Your task to perform on an android device: choose inbox layout in the gmail app Image 0: 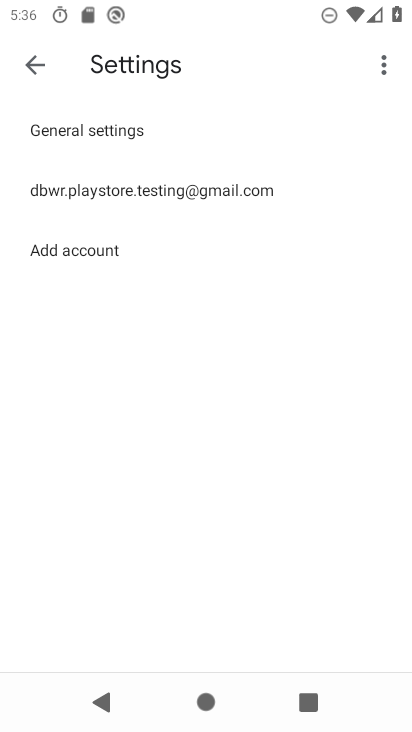
Step 0: click (38, 66)
Your task to perform on an android device: choose inbox layout in the gmail app Image 1: 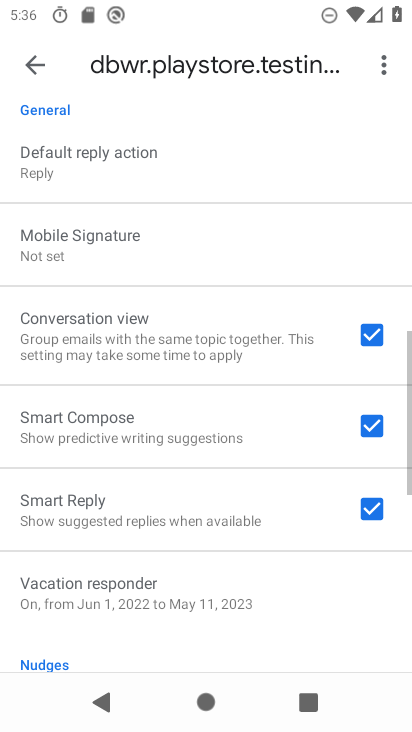
Step 1: click (38, 66)
Your task to perform on an android device: choose inbox layout in the gmail app Image 2: 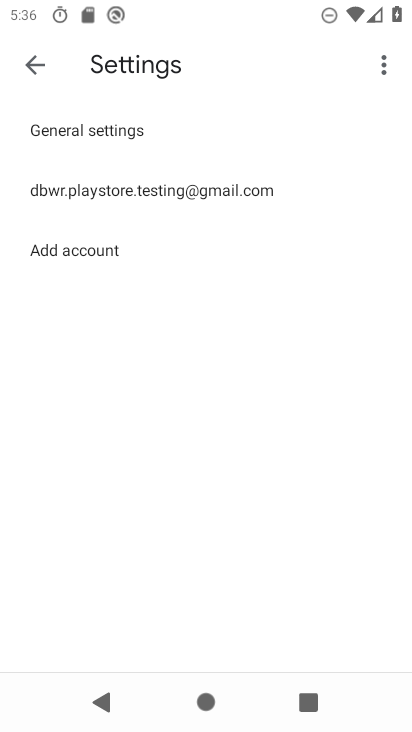
Step 2: click (38, 66)
Your task to perform on an android device: choose inbox layout in the gmail app Image 3: 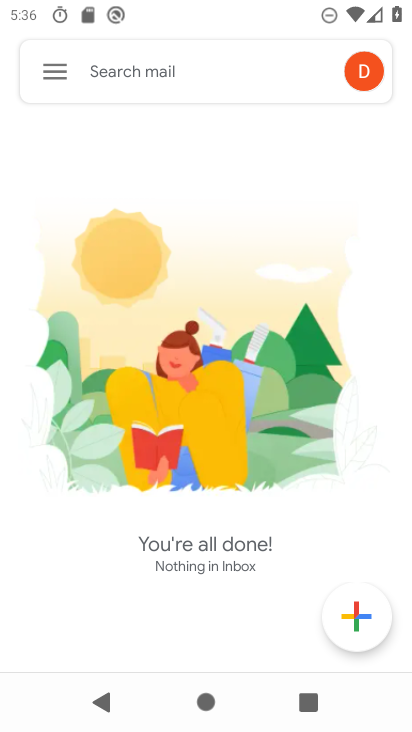
Step 3: click (70, 79)
Your task to perform on an android device: choose inbox layout in the gmail app Image 4: 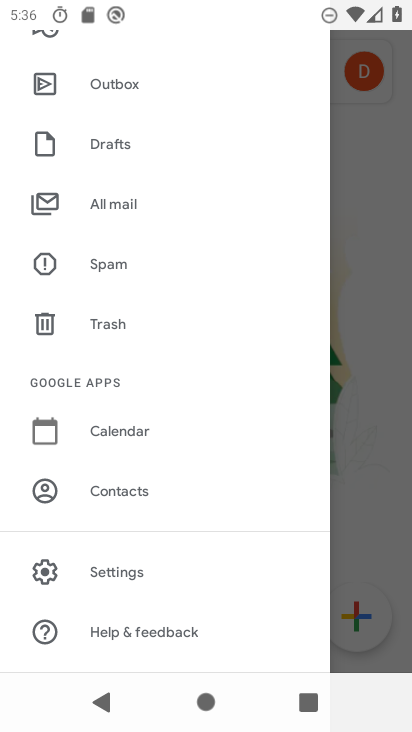
Step 4: click (121, 571)
Your task to perform on an android device: choose inbox layout in the gmail app Image 5: 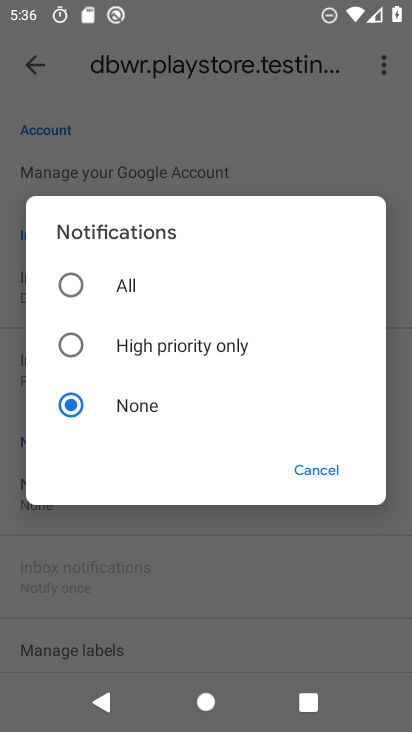
Step 5: click (318, 482)
Your task to perform on an android device: choose inbox layout in the gmail app Image 6: 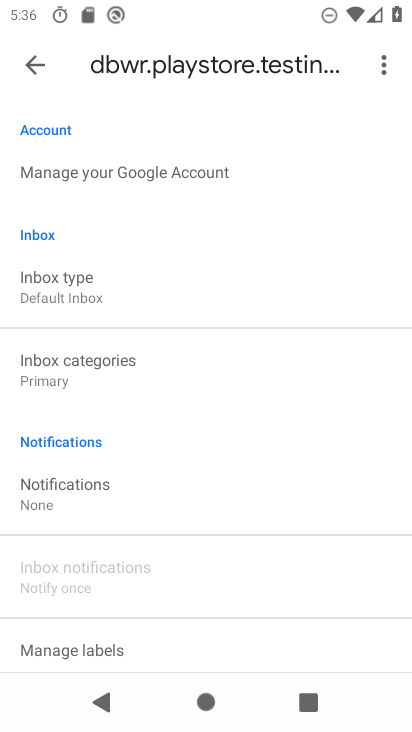
Step 6: click (74, 282)
Your task to perform on an android device: choose inbox layout in the gmail app Image 7: 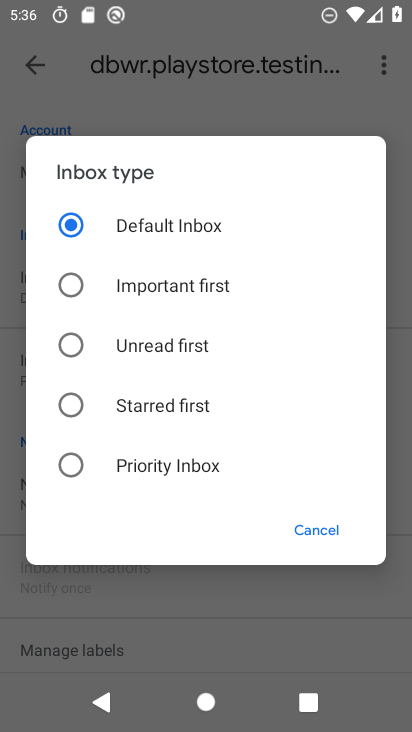
Step 7: click (165, 475)
Your task to perform on an android device: choose inbox layout in the gmail app Image 8: 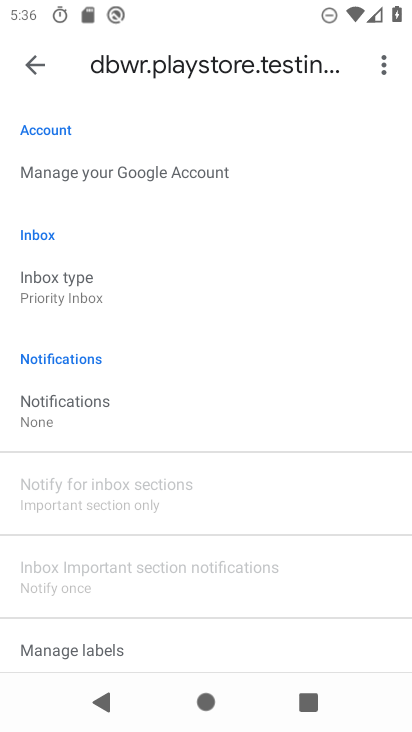
Step 8: task complete